Your task to perform on an android device: check data usage Image 0: 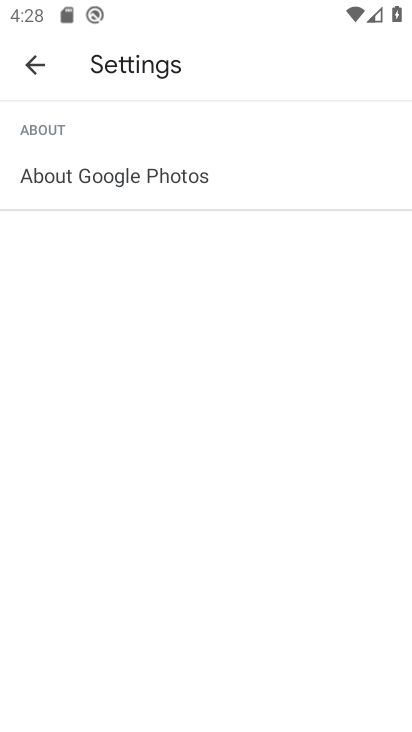
Step 0: press back button
Your task to perform on an android device: check data usage Image 1: 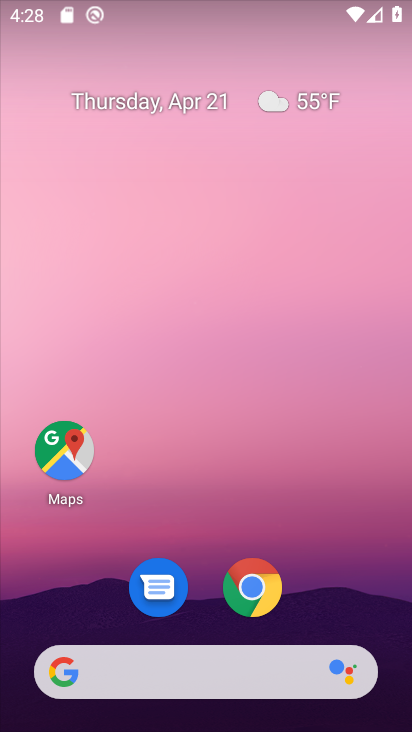
Step 1: drag from (186, 636) to (236, 127)
Your task to perform on an android device: check data usage Image 2: 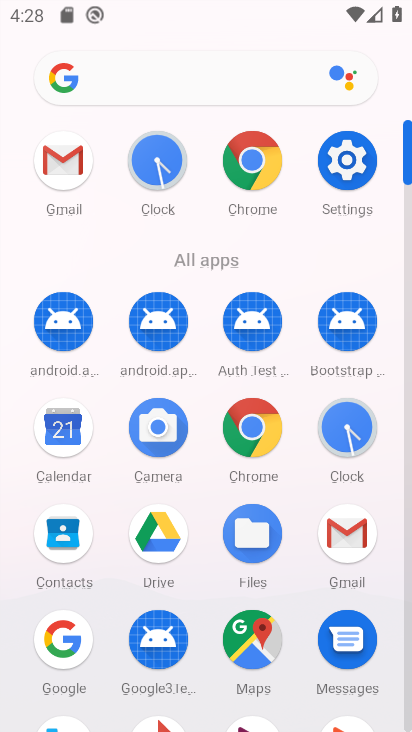
Step 2: click (347, 184)
Your task to perform on an android device: check data usage Image 3: 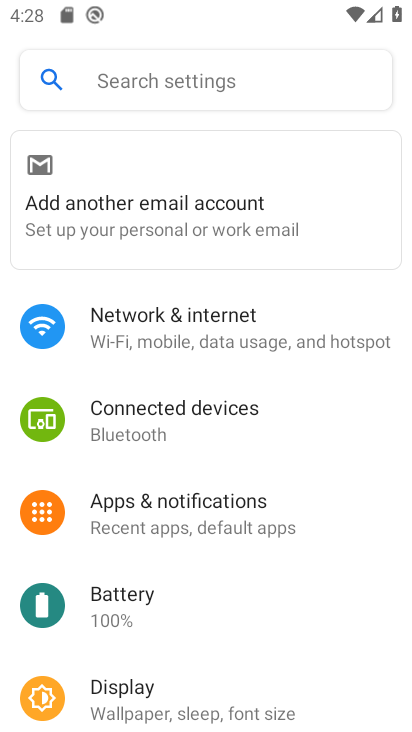
Step 3: click (241, 332)
Your task to perform on an android device: check data usage Image 4: 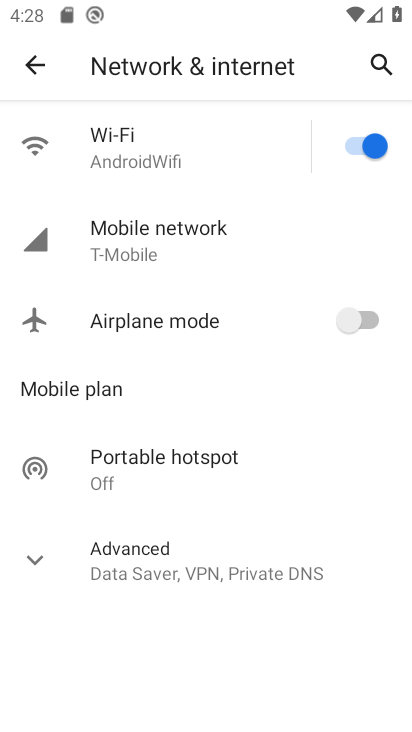
Step 4: click (258, 257)
Your task to perform on an android device: check data usage Image 5: 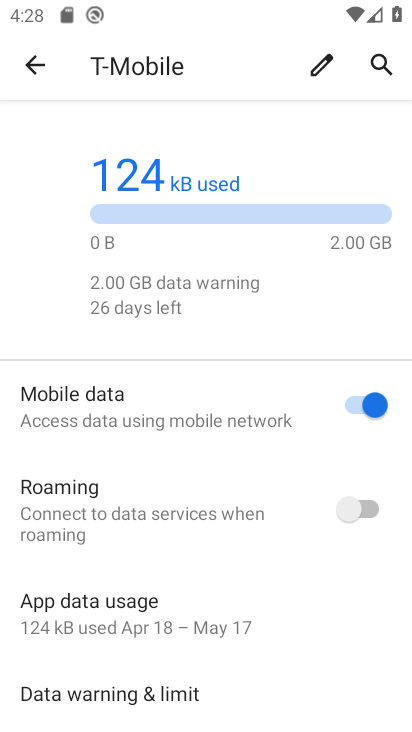
Step 5: click (174, 626)
Your task to perform on an android device: check data usage Image 6: 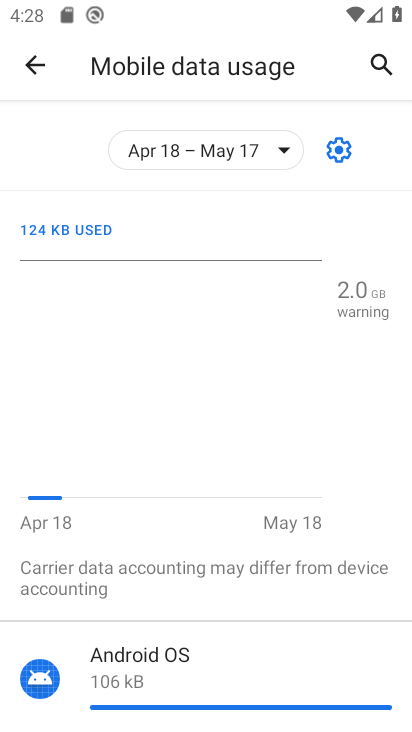
Step 6: task complete